Your task to perform on an android device: Find coffee shops on Maps Image 0: 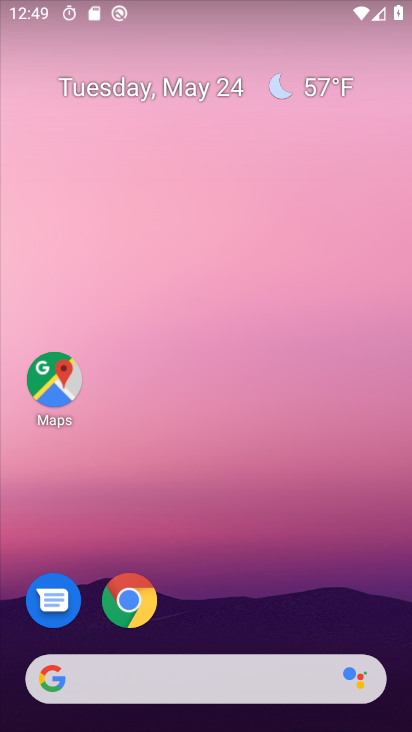
Step 0: click (64, 386)
Your task to perform on an android device: Find coffee shops on Maps Image 1: 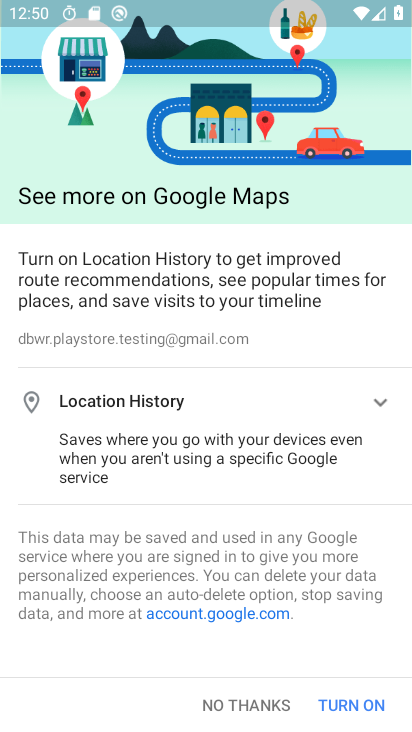
Step 1: click (238, 711)
Your task to perform on an android device: Find coffee shops on Maps Image 2: 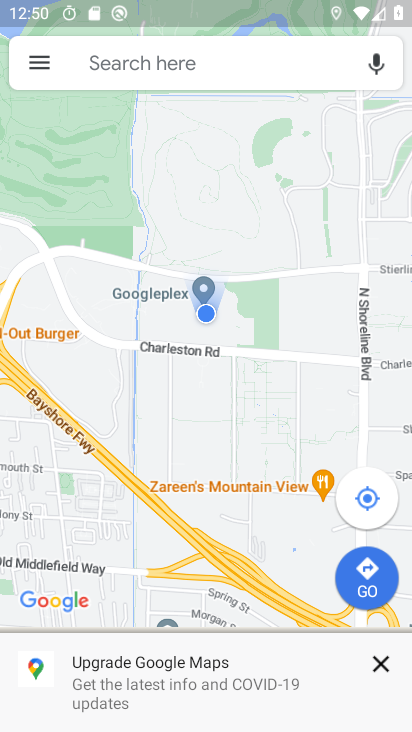
Step 2: click (150, 67)
Your task to perform on an android device: Find coffee shops on Maps Image 3: 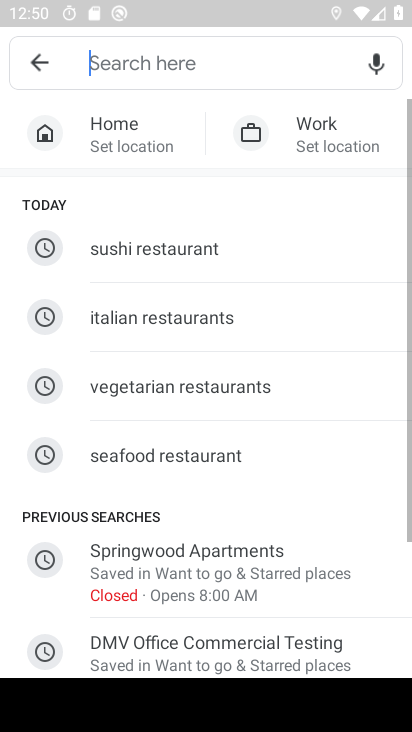
Step 3: drag from (159, 470) to (236, 53)
Your task to perform on an android device: Find coffee shops on Maps Image 4: 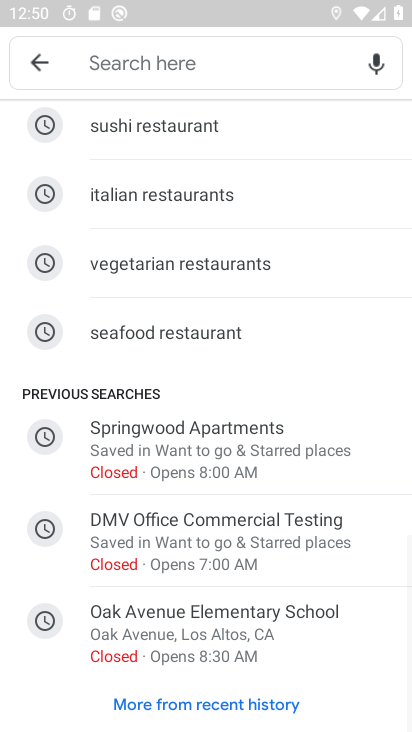
Step 4: drag from (172, 175) to (172, 653)
Your task to perform on an android device: Find coffee shops on Maps Image 5: 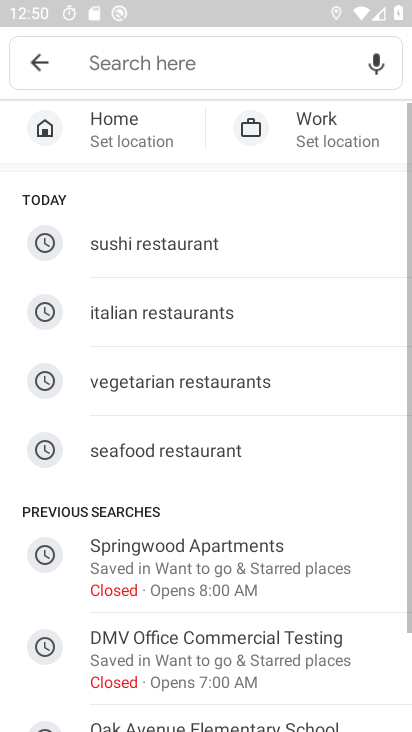
Step 5: click (134, 51)
Your task to perform on an android device: Find coffee shops on Maps Image 6: 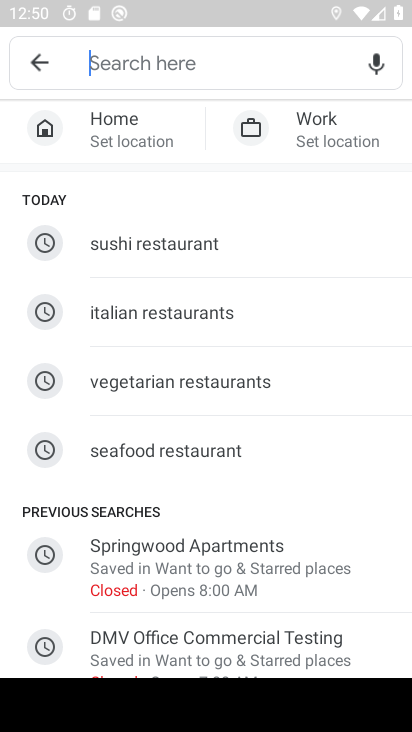
Step 6: type "coffee ahopa"
Your task to perform on an android device: Find coffee shops on Maps Image 7: 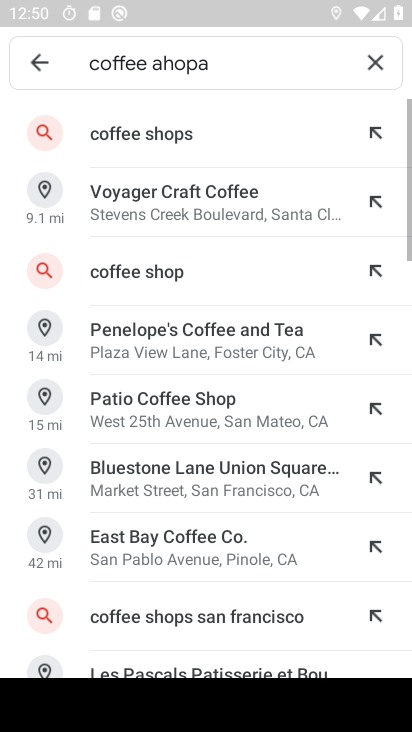
Step 7: click (161, 139)
Your task to perform on an android device: Find coffee shops on Maps Image 8: 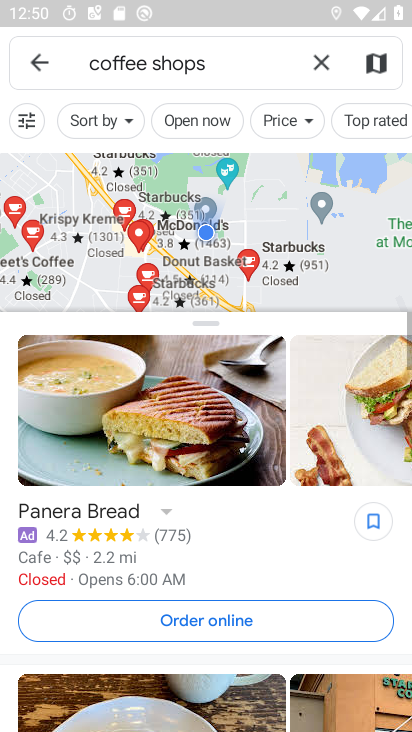
Step 8: task complete